Your task to perform on an android device: Open Amazon Image 0: 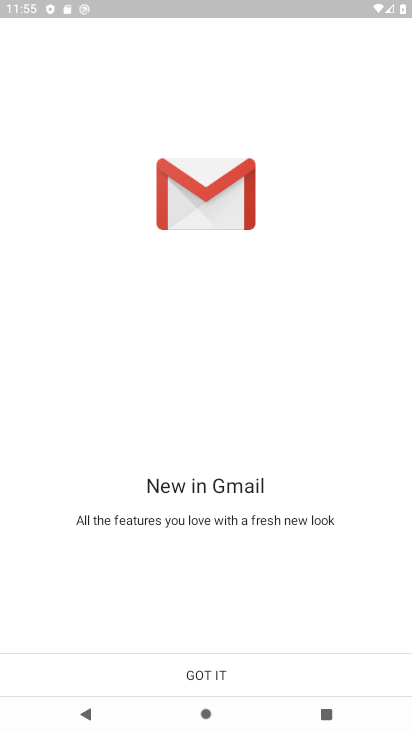
Step 0: press back button
Your task to perform on an android device: Open Amazon Image 1: 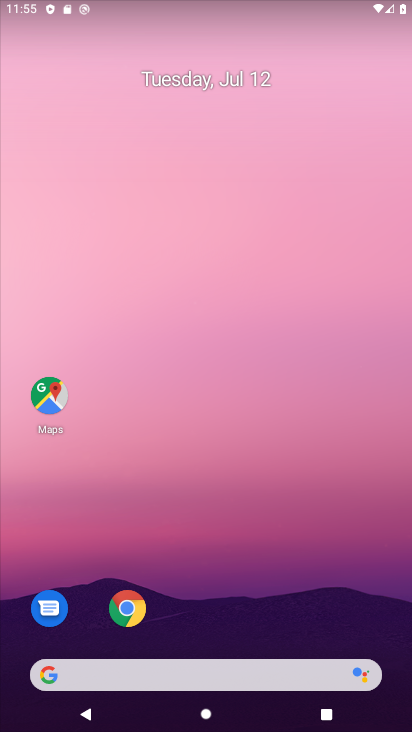
Step 1: click (114, 602)
Your task to perform on an android device: Open Amazon Image 2: 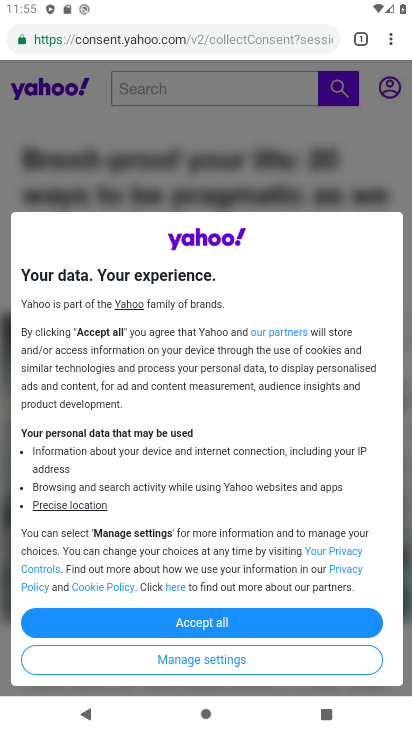
Step 2: click (358, 35)
Your task to perform on an android device: Open Amazon Image 3: 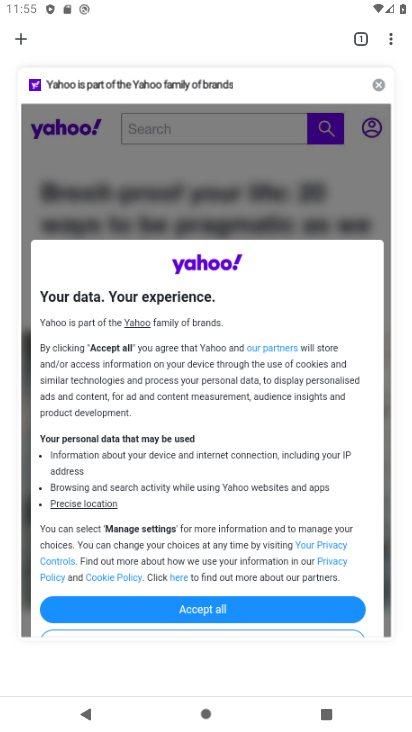
Step 3: click (19, 39)
Your task to perform on an android device: Open Amazon Image 4: 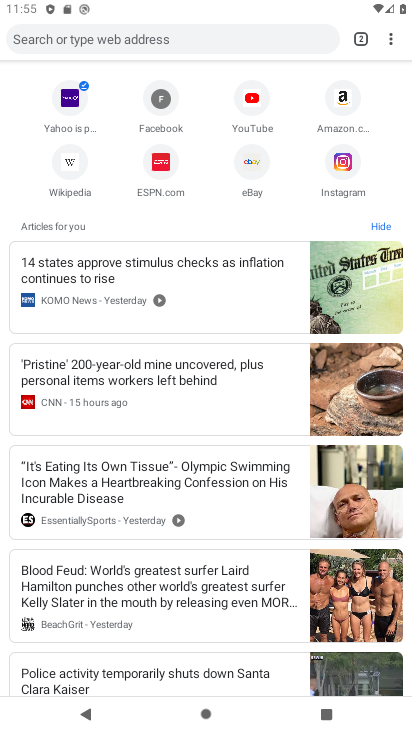
Step 4: click (335, 96)
Your task to perform on an android device: Open Amazon Image 5: 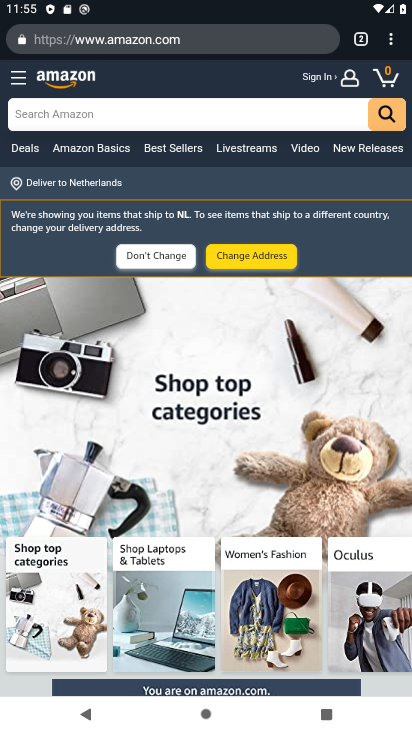
Step 5: task complete